Your task to perform on an android device: turn on wifi Image 0: 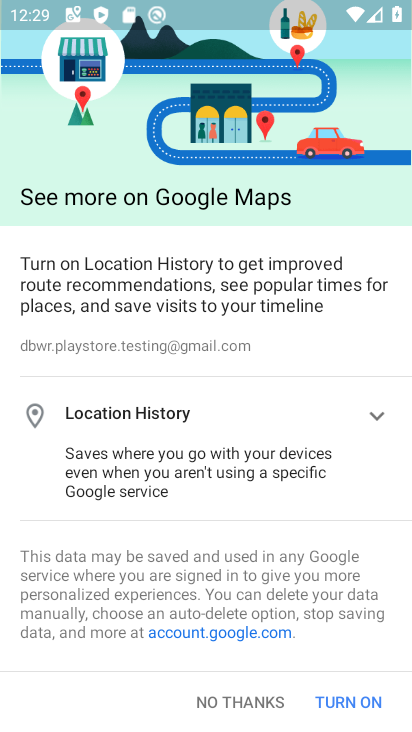
Step 0: press home button
Your task to perform on an android device: turn on wifi Image 1: 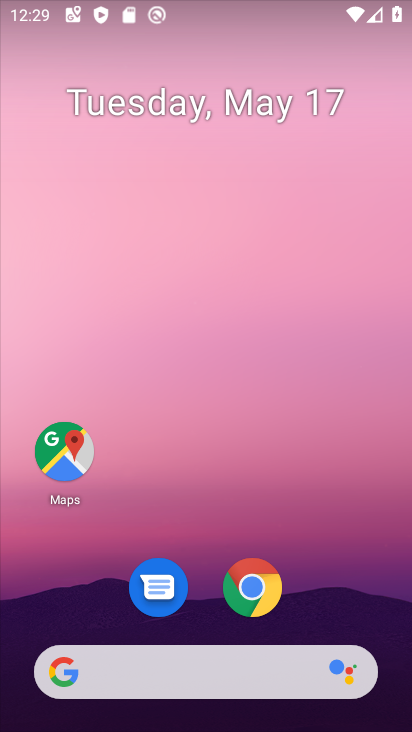
Step 1: drag from (196, 628) to (192, 100)
Your task to perform on an android device: turn on wifi Image 2: 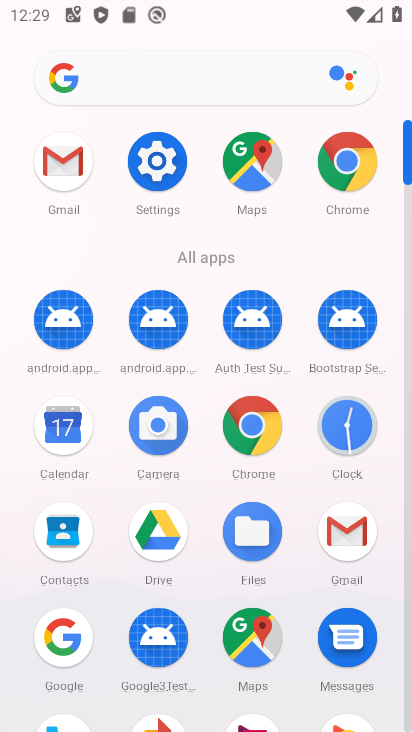
Step 2: click (164, 135)
Your task to perform on an android device: turn on wifi Image 3: 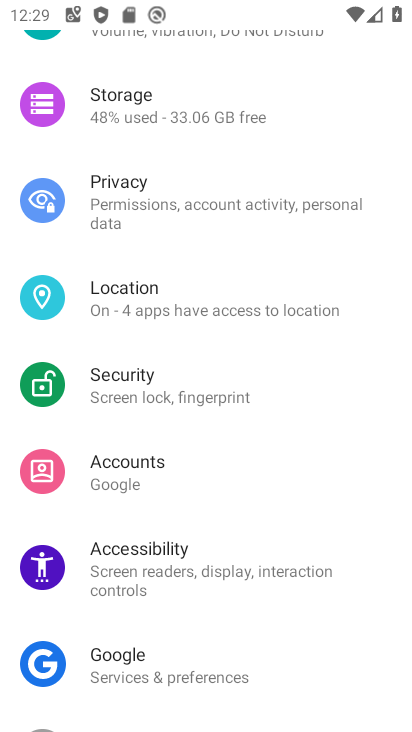
Step 3: drag from (170, 137) to (61, 612)
Your task to perform on an android device: turn on wifi Image 4: 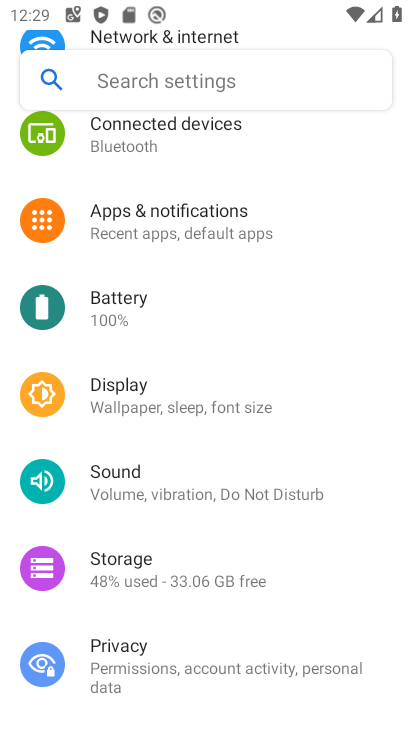
Step 4: drag from (185, 178) to (154, 693)
Your task to perform on an android device: turn on wifi Image 5: 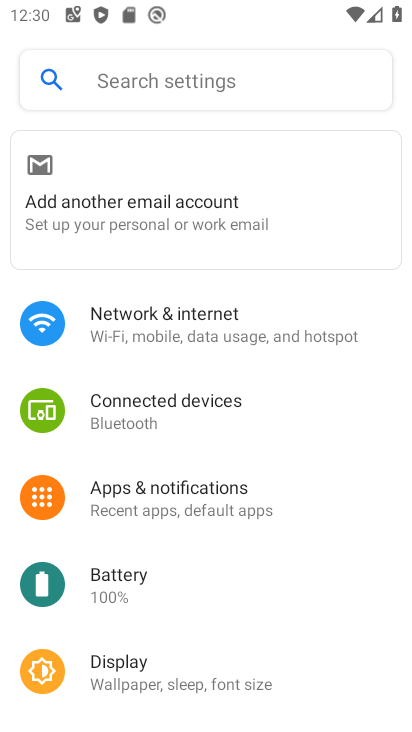
Step 5: click (164, 316)
Your task to perform on an android device: turn on wifi Image 6: 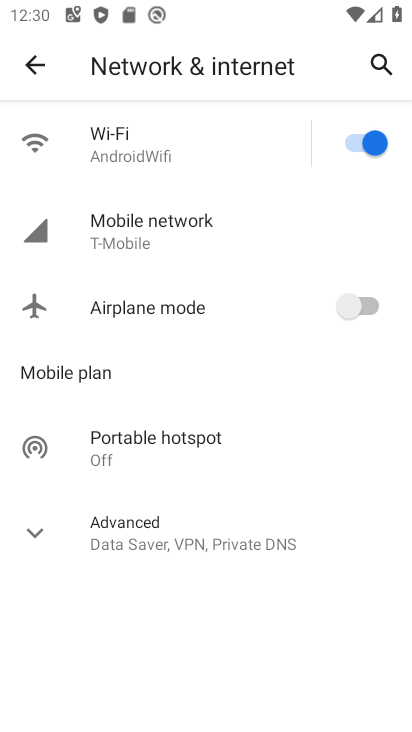
Step 6: task complete